Your task to perform on an android device: Check the news Image 0: 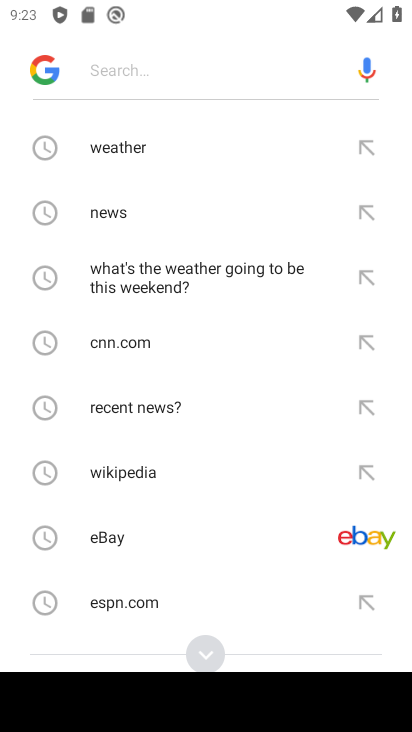
Step 0: press back button
Your task to perform on an android device: Check the news Image 1: 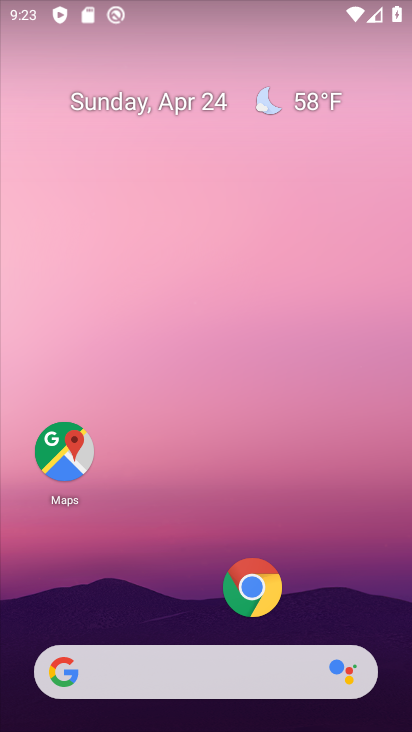
Step 1: task complete